Your task to perform on an android device: Open Google Maps and go to "Timeline" Image 0: 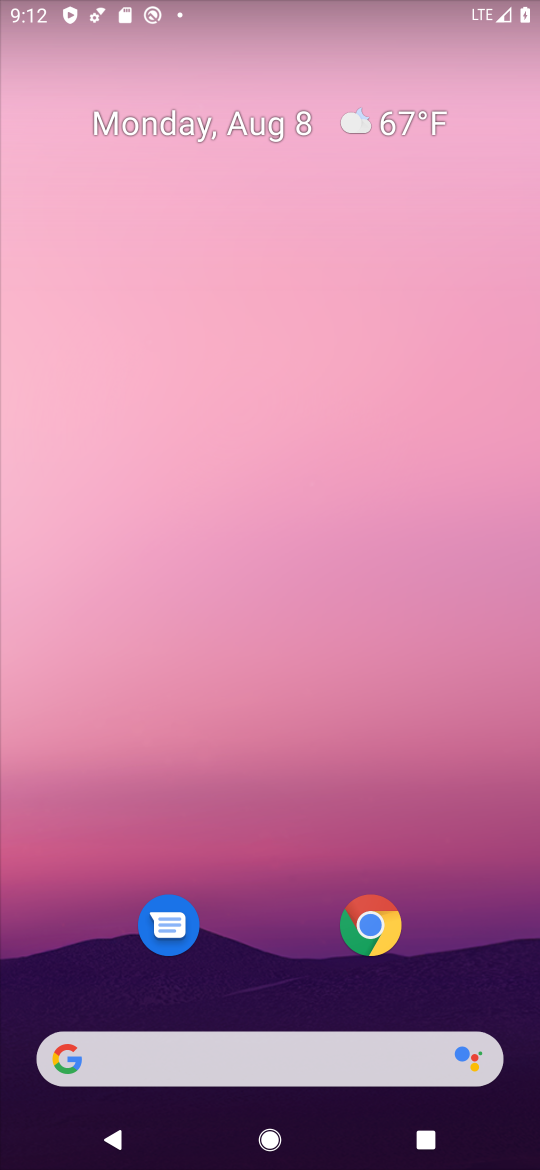
Step 0: click (531, 514)
Your task to perform on an android device: Open Google Maps and go to "Timeline" Image 1: 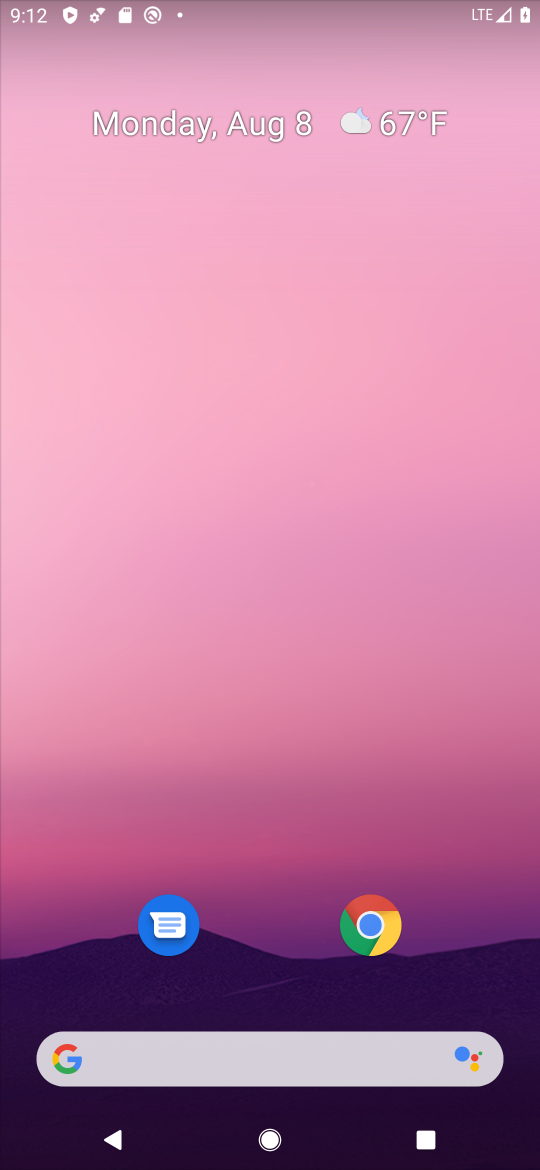
Step 1: drag from (262, 956) to (300, 109)
Your task to perform on an android device: Open Google Maps and go to "Timeline" Image 2: 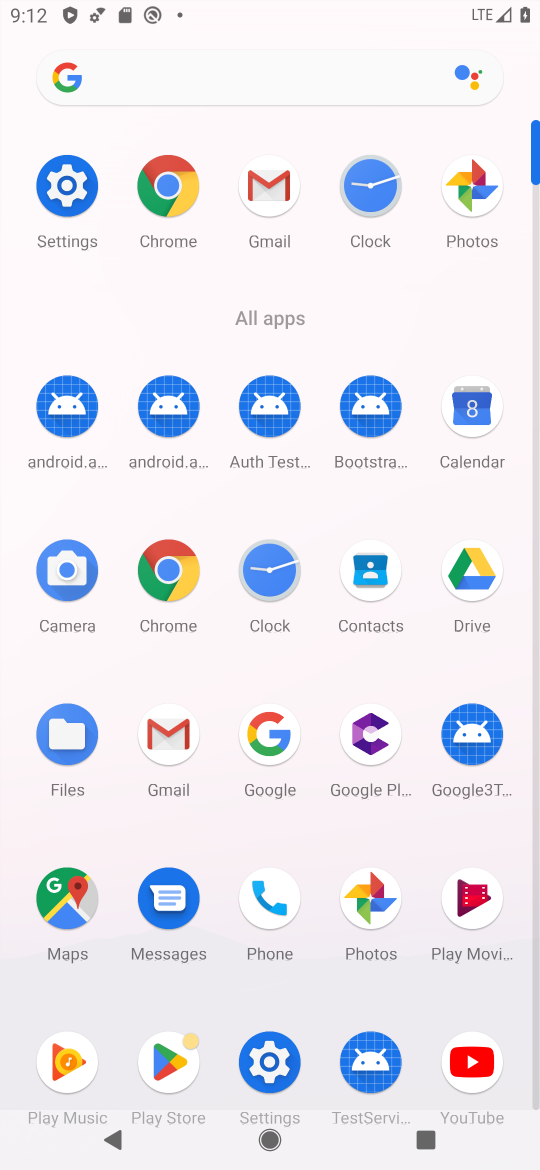
Step 2: click (59, 881)
Your task to perform on an android device: Open Google Maps and go to "Timeline" Image 3: 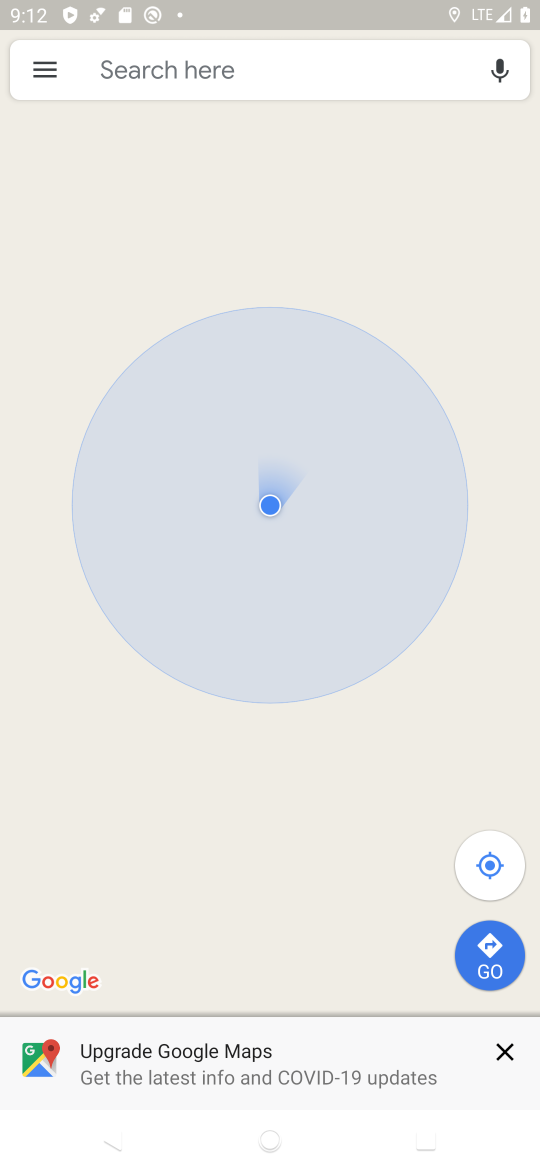
Step 3: click (36, 81)
Your task to perform on an android device: Open Google Maps and go to "Timeline" Image 4: 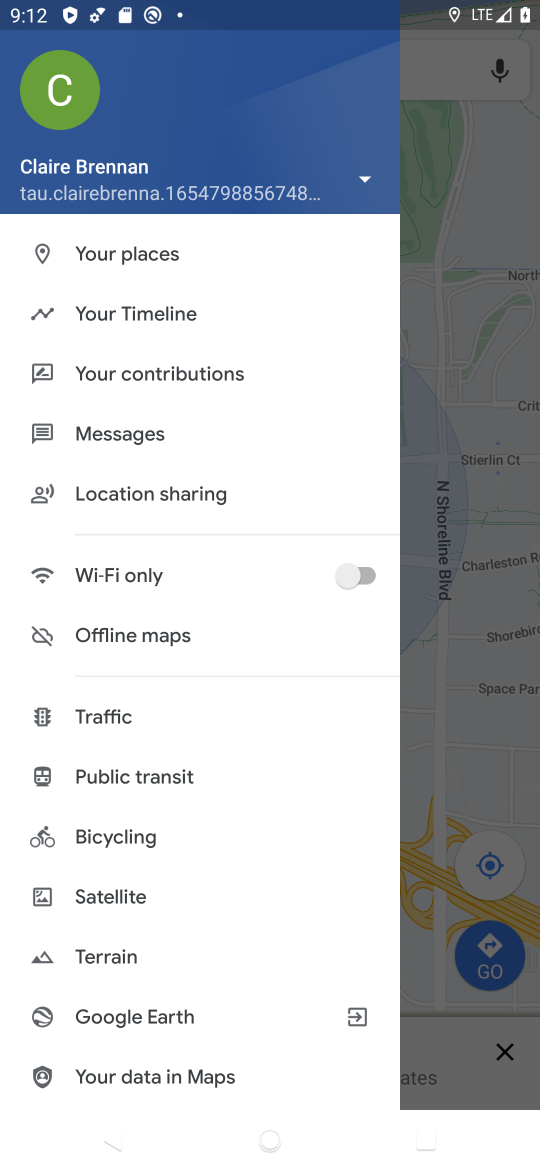
Step 4: click (189, 311)
Your task to perform on an android device: Open Google Maps and go to "Timeline" Image 5: 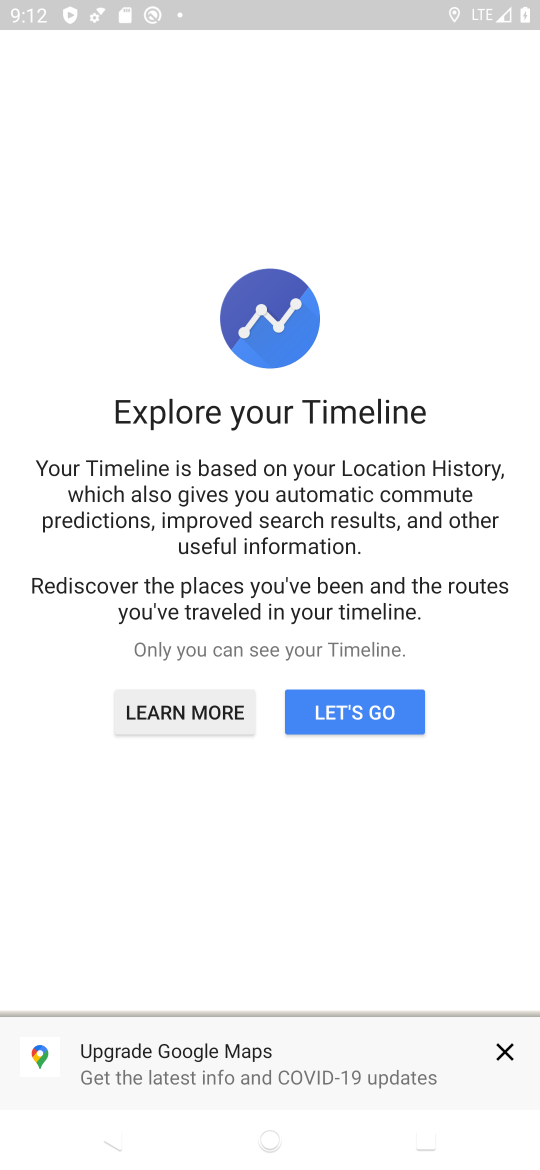
Step 5: click (380, 725)
Your task to perform on an android device: Open Google Maps and go to "Timeline" Image 6: 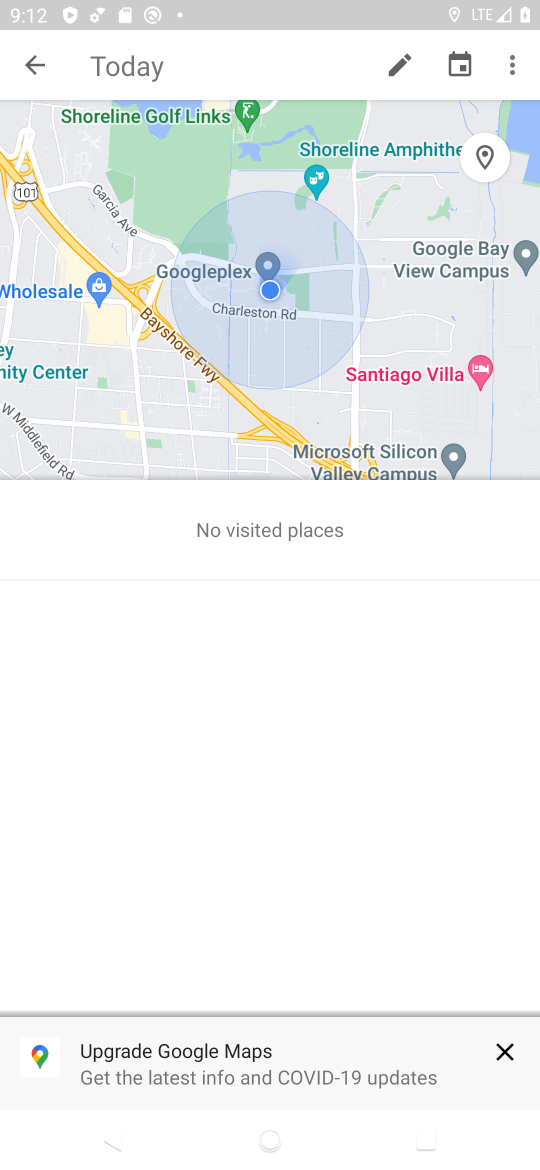
Step 6: task complete